Your task to perform on an android device: Clear the shopping cart on costco. Search for acer nitro on costco, select the first entry, add it to the cart, then select checkout. Image 0: 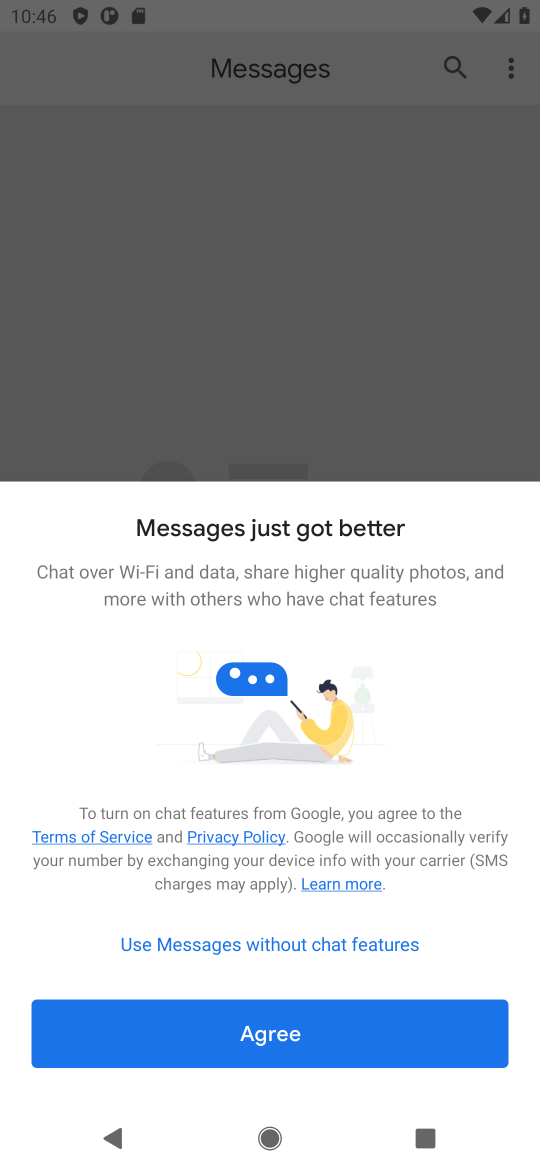
Step 0: click (307, 1054)
Your task to perform on an android device: Clear the shopping cart on costco. Search for acer nitro on costco, select the first entry, add it to the cart, then select checkout. Image 1: 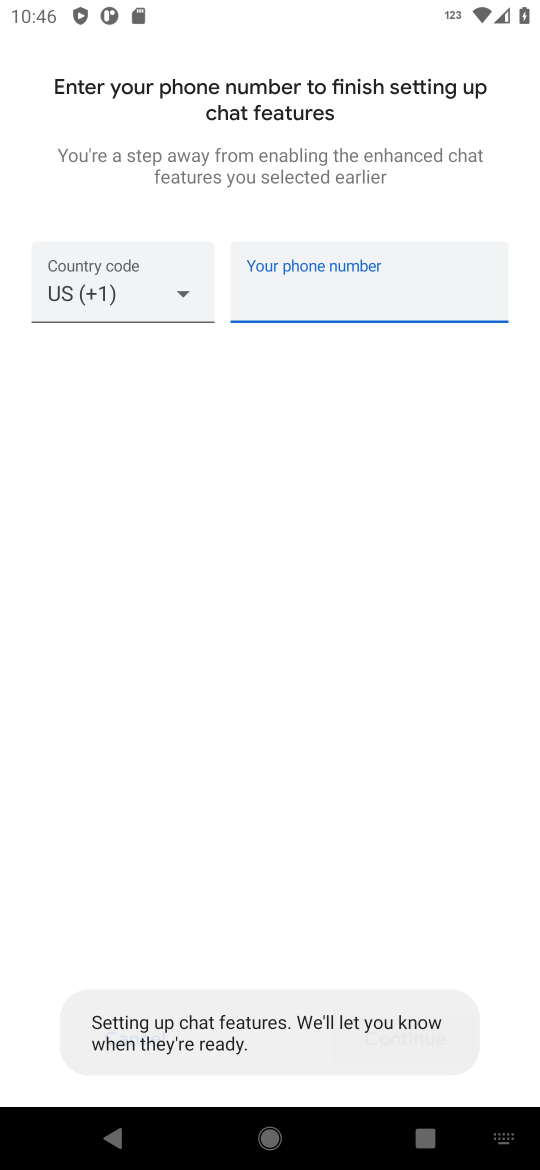
Step 1: press home button
Your task to perform on an android device: Clear the shopping cart on costco. Search for acer nitro on costco, select the first entry, add it to the cart, then select checkout. Image 2: 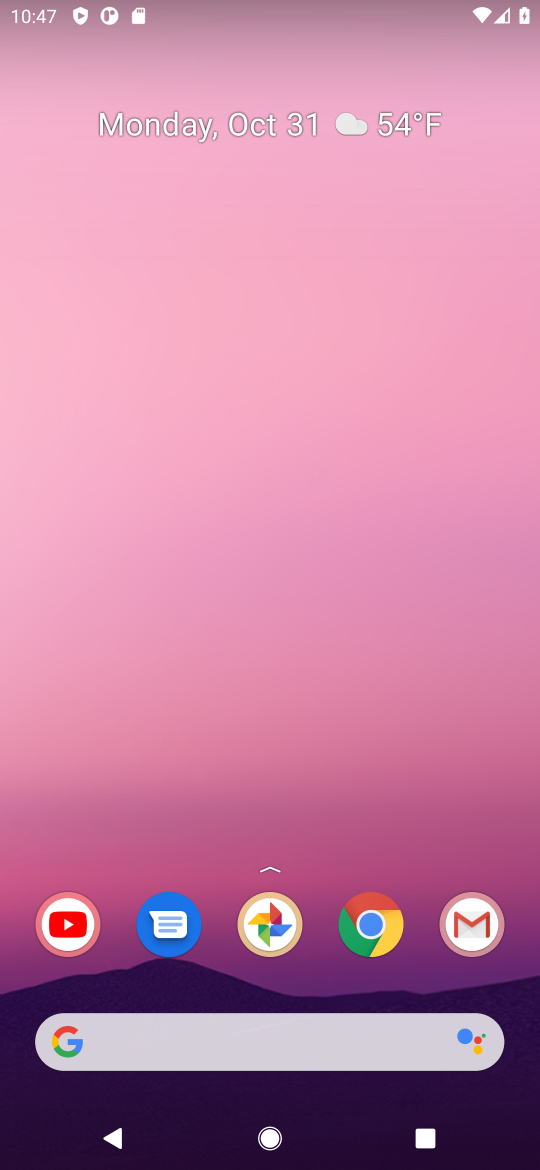
Step 2: click (364, 924)
Your task to perform on an android device: Clear the shopping cart on costco. Search for acer nitro on costco, select the first entry, add it to the cart, then select checkout. Image 3: 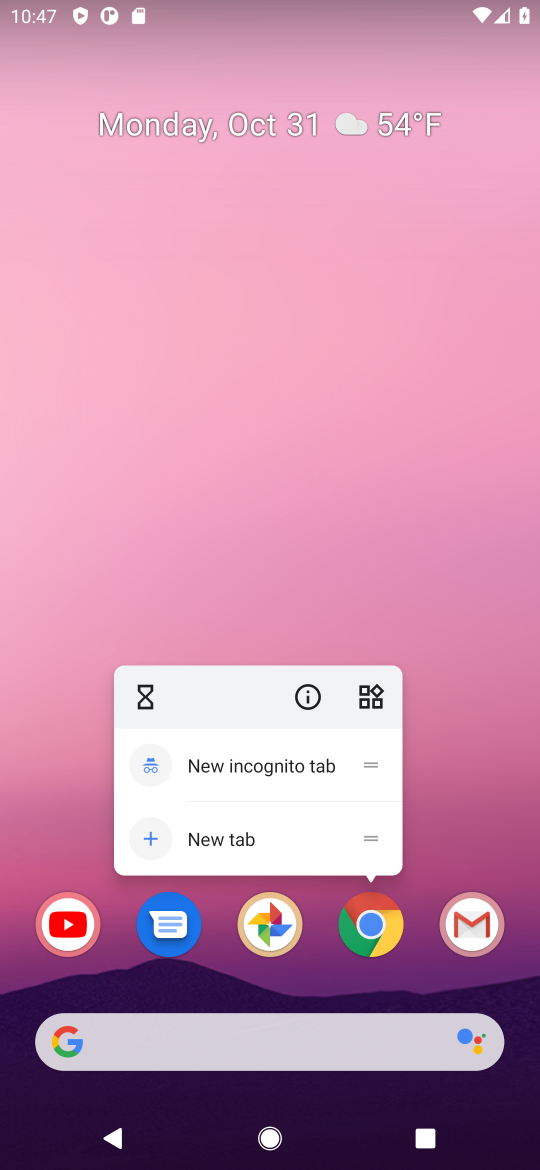
Step 3: click (207, 846)
Your task to perform on an android device: Clear the shopping cart on costco. Search for acer nitro on costco, select the first entry, add it to the cart, then select checkout. Image 4: 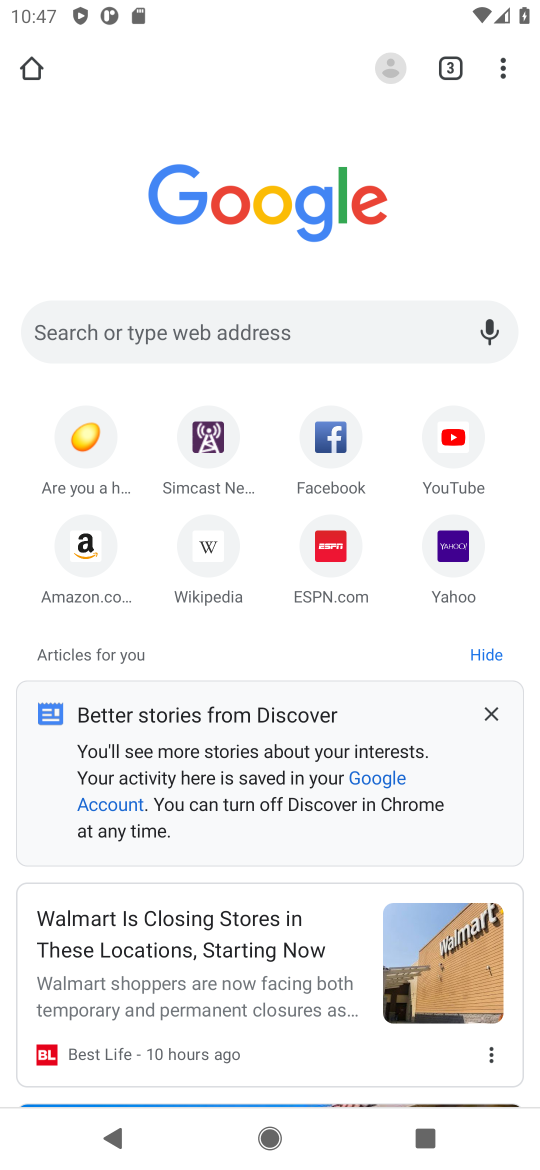
Step 4: click (258, 343)
Your task to perform on an android device: Clear the shopping cart on costco. Search for acer nitro on costco, select the first entry, add it to the cart, then select checkout. Image 5: 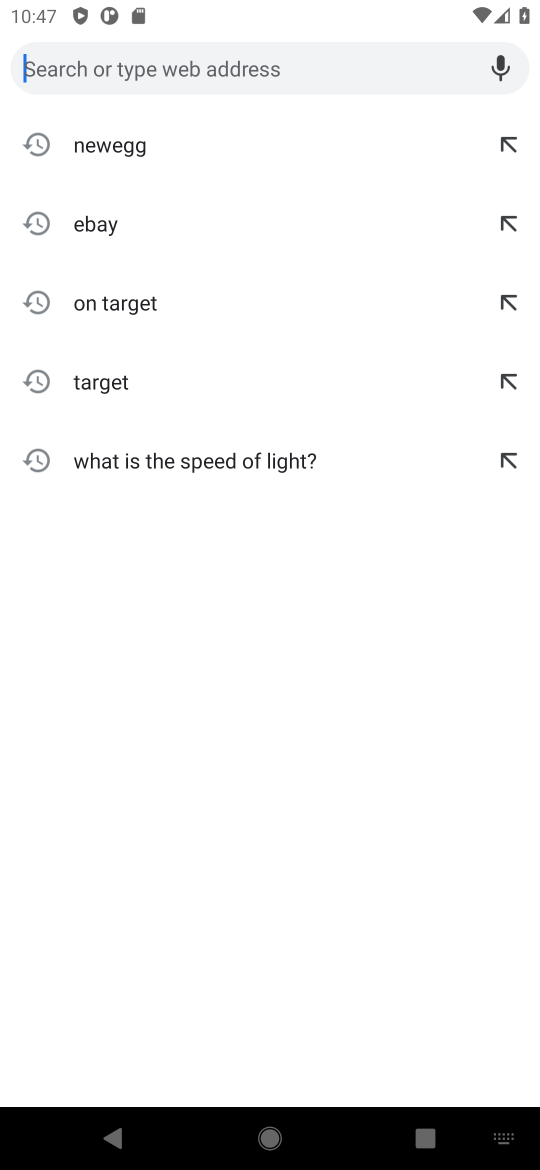
Step 5: type "costco"
Your task to perform on an android device: Clear the shopping cart on costco. Search for acer nitro on costco, select the first entry, add it to the cart, then select checkout. Image 6: 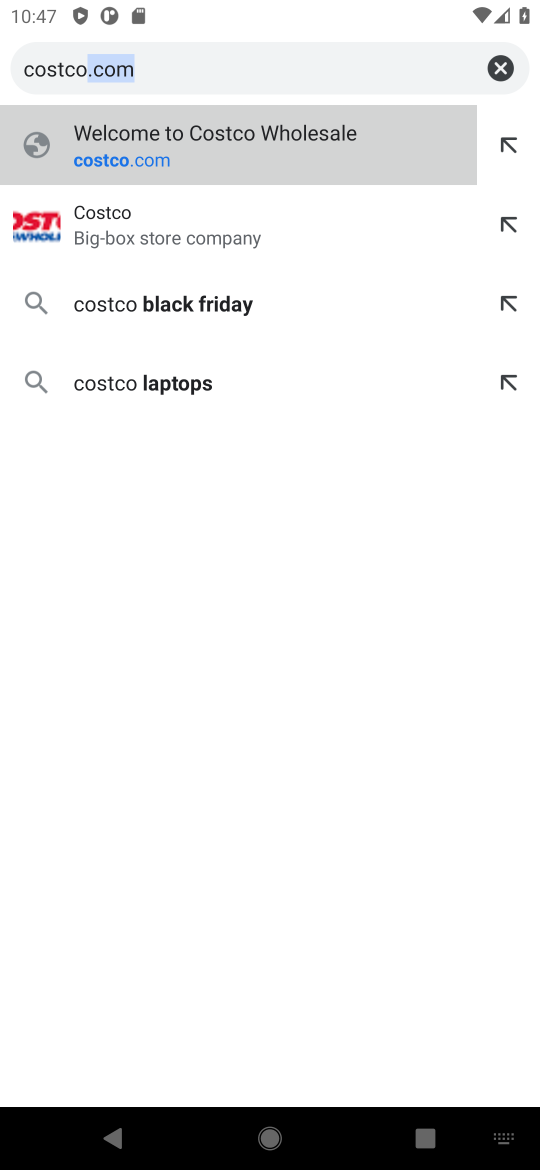
Step 6: type ""
Your task to perform on an android device: Clear the shopping cart on costco. Search for acer nitro on costco, select the first entry, add it to the cart, then select checkout. Image 7: 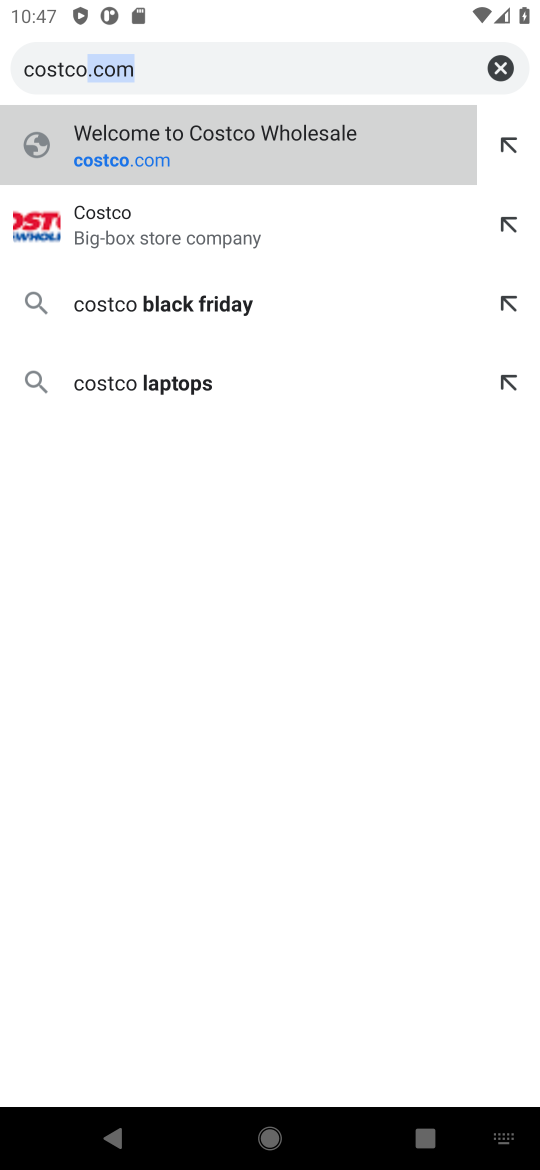
Step 7: click (161, 157)
Your task to perform on an android device: Clear the shopping cart on costco. Search for acer nitro on costco, select the first entry, add it to the cart, then select checkout. Image 8: 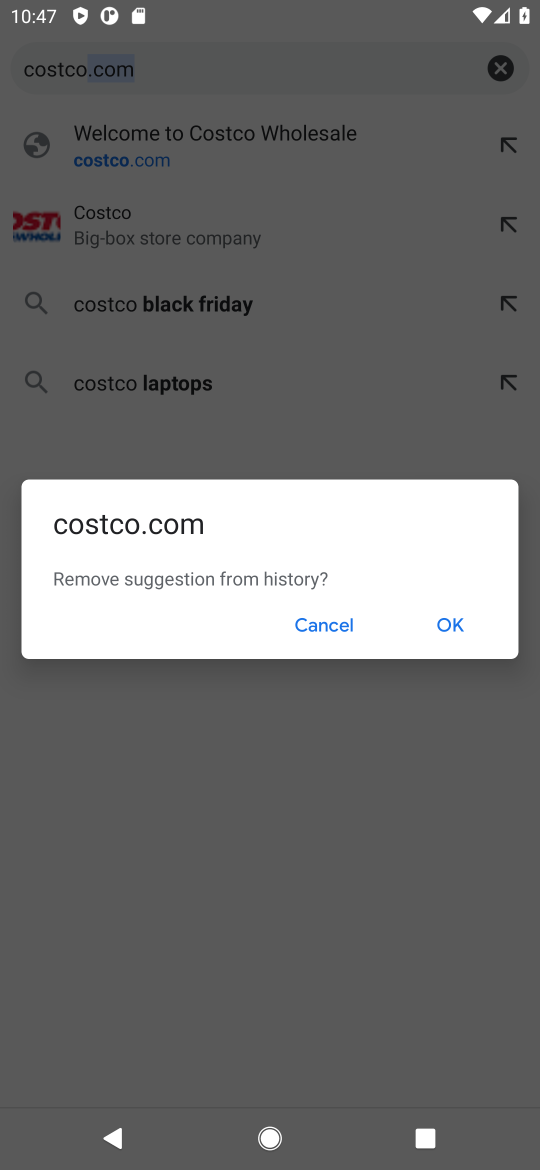
Step 8: click (456, 634)
Your task to perform on an android device: Clear the shopping cart on costco. Search for acer nitro on costco, select the first entry, add it to the cart, then select checkout. Image 9: 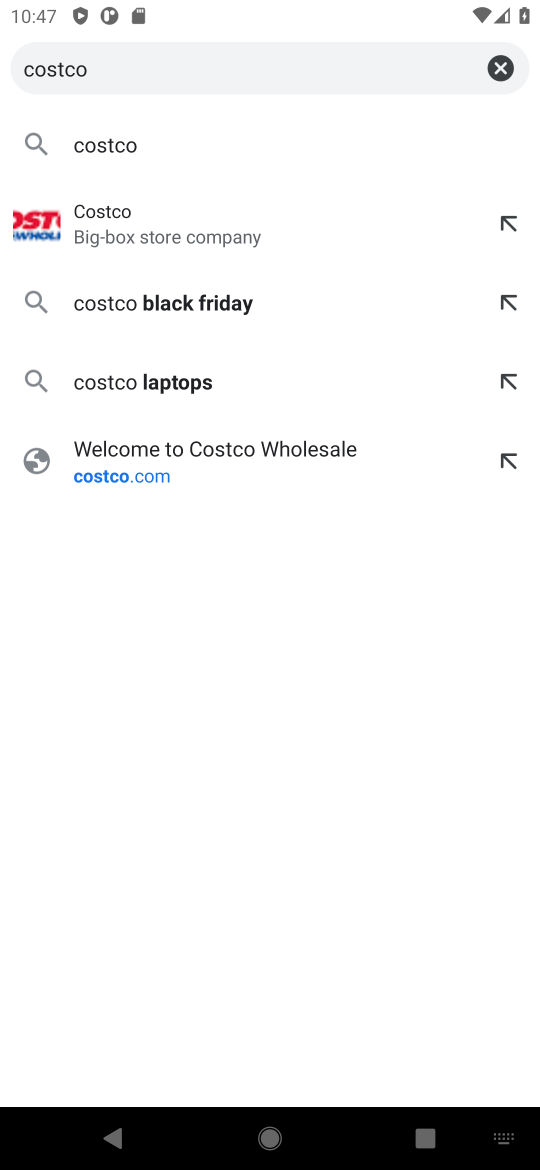
Step 9: click (122, 475)
Your task to perform on an android device: Clear the shopping cart on costco. Search for acer nitro on costco, select the first entry, add it to the cart, then select checkout. Image 10: 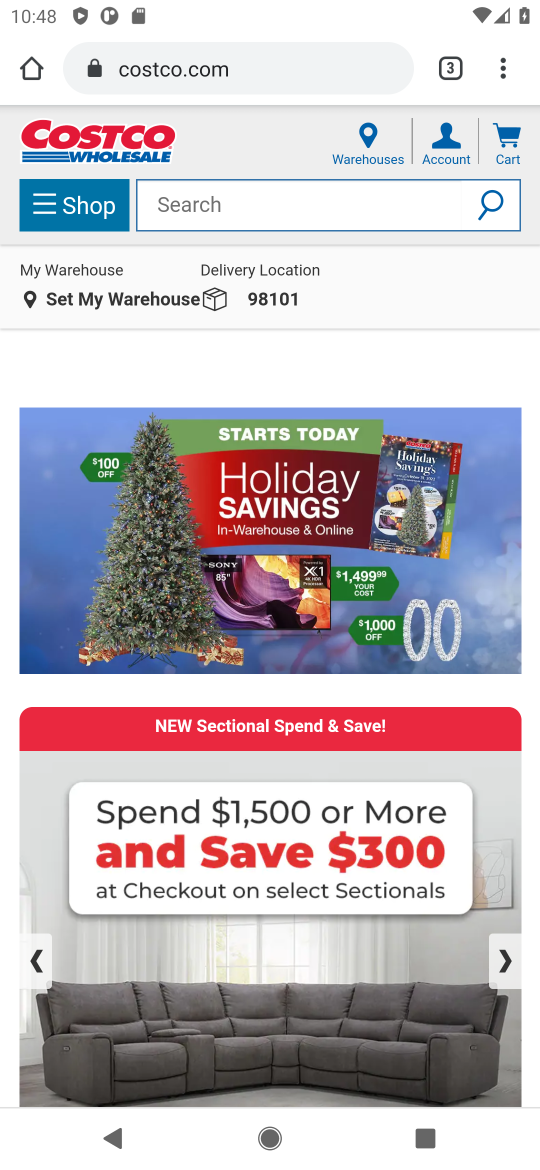
Step 10: click (329, 210)
Your task to perform on an android device: Clear the shopping cart on costco. Search for acer nitro on costco, select the first entry, add it to the cart, then select checkout. Image 11: 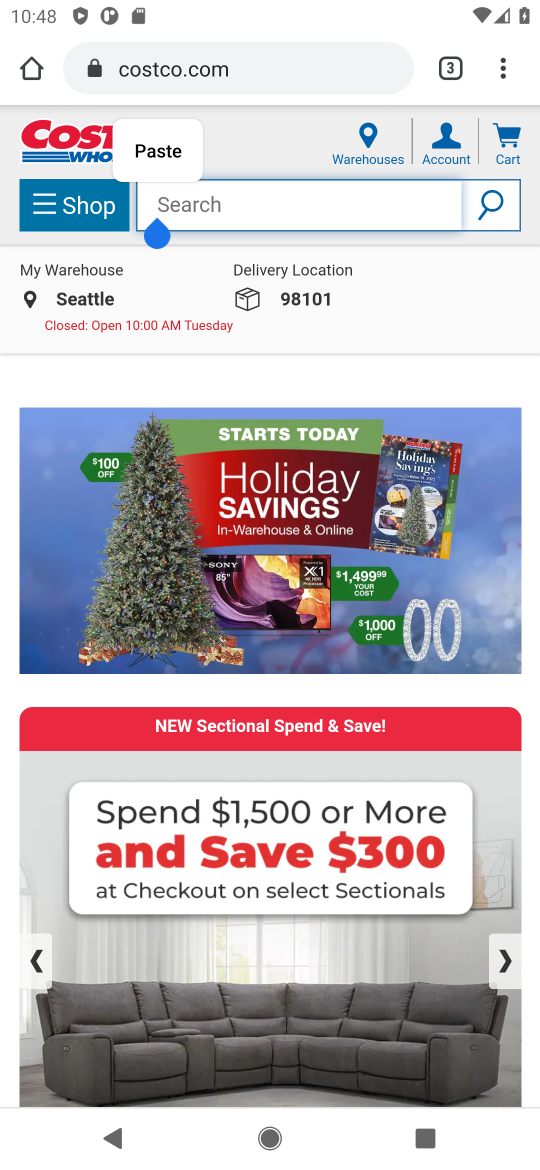
Step 11: type "acer nitro"
Your task to perform on an android device: Clear the shopping cart on costco. Search for acer nitro on costco, select the first entry, add it to the cart, then select checkout. Image 12: 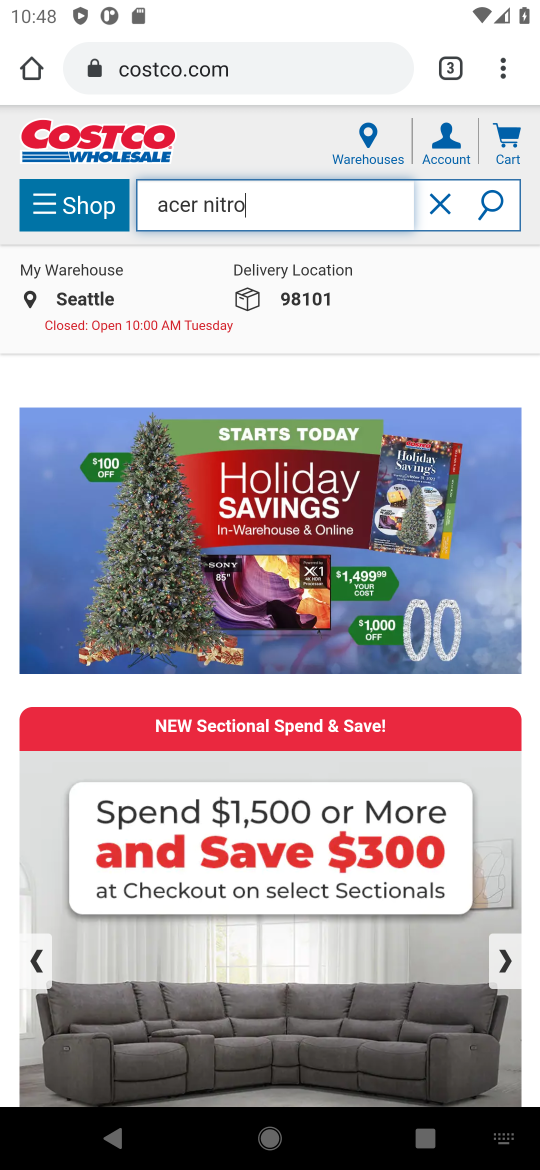
Step 12: type ""
Your task to perform on an android device: Clear the shopping cart on costco. Search for acer nitro on costco, select the first entry, add it to the cart, then select checkout. Image 13: 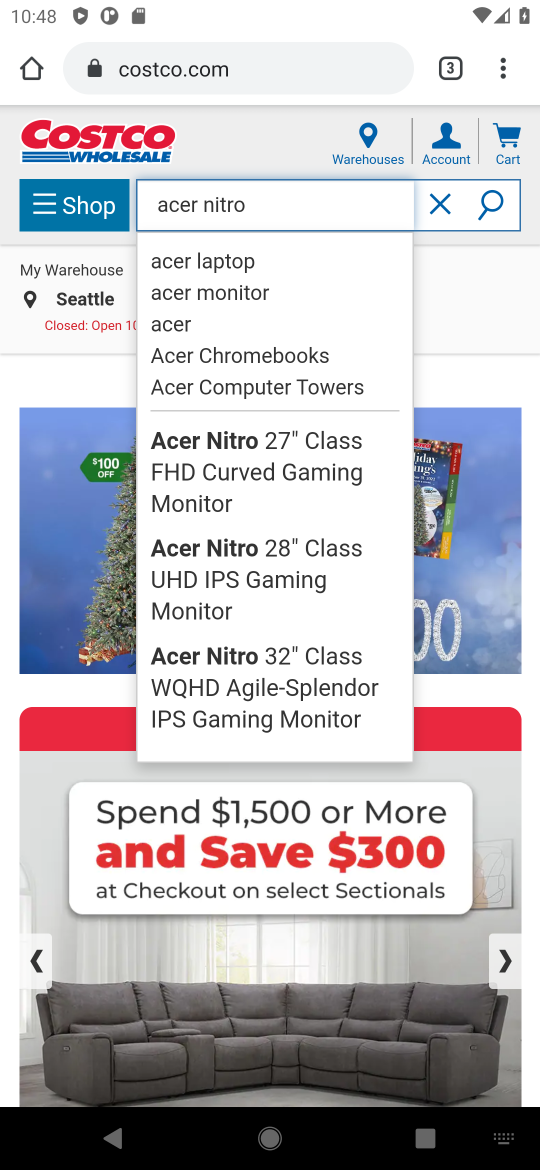
Step 13: click (255, 464)
Your task to perform on an android device: Clear the shopping cart on costco. Search for acer nitro on costco, select the first entry, add it to the cart, then select checkout. Image 14: 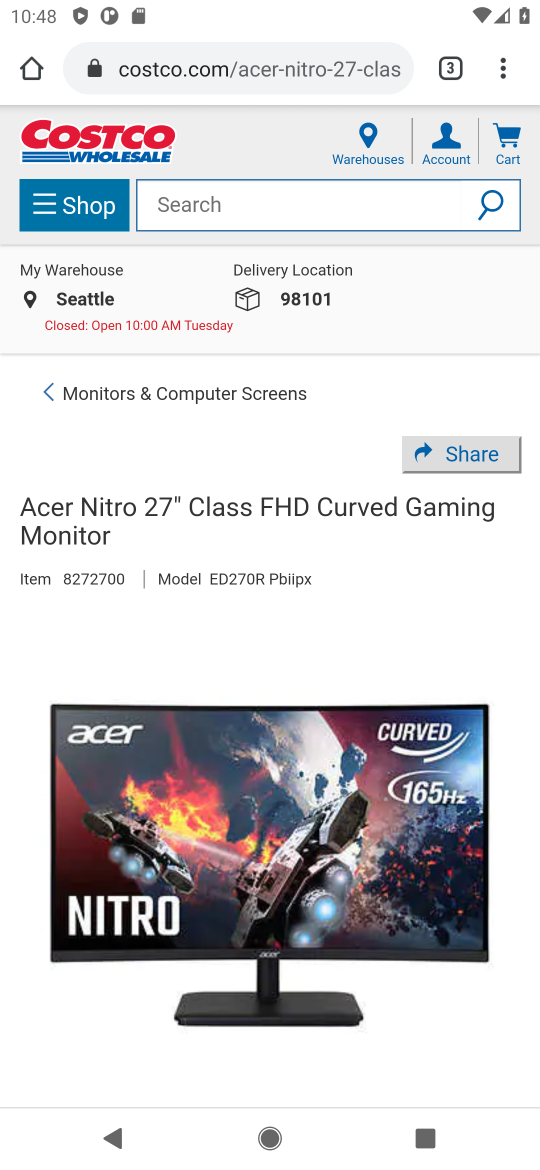
Step 14: drag from (255, 677) to (344, 314)
Your task to perform on an android device: Clear the shopping cart on costco. Search for acer nitro on costco, select the first entry, add it to the cart, then select checkout. Image 15: 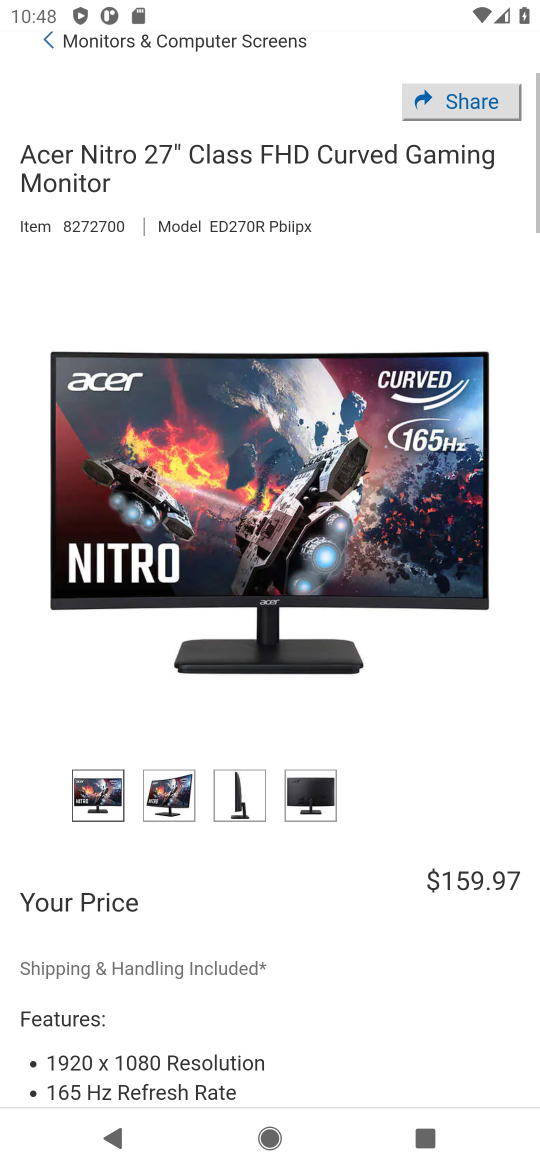
Step 15: drag from (274, 827) to (375, 350)
Your task to perform on an android device: Clear the shopping cart on costco. Search for acer nitro on costco, select the first entry, add it to the cart, then select checkout. Image 16: 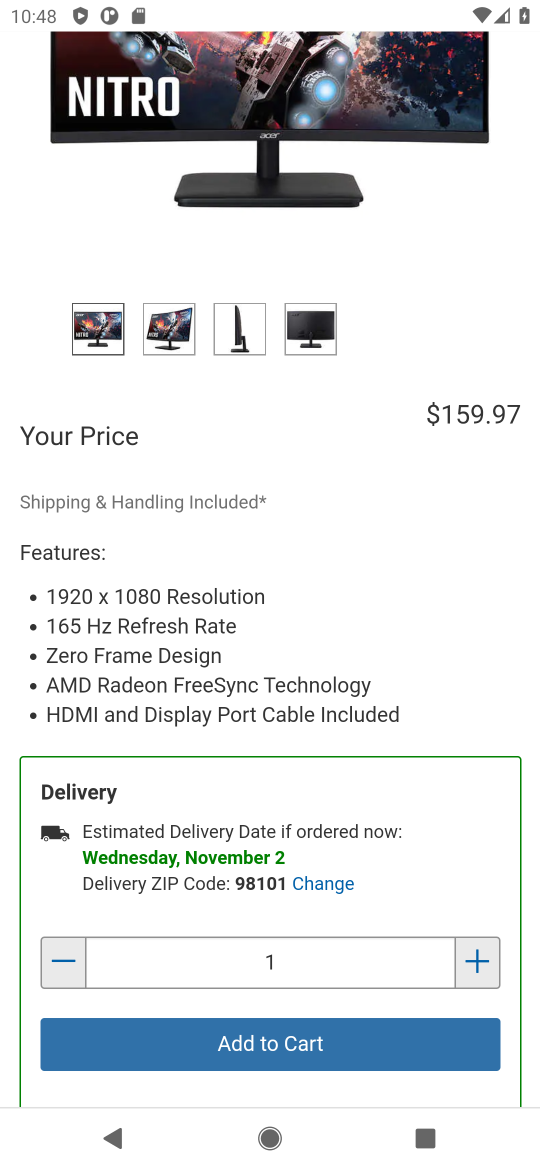
Step 16: click (260, 1051)
Your task to perform on an android device: Clear the shopping cart on costco. Search for acer nitro on costco, select the first entry, add it to the cart, then select checkout. Image 17: 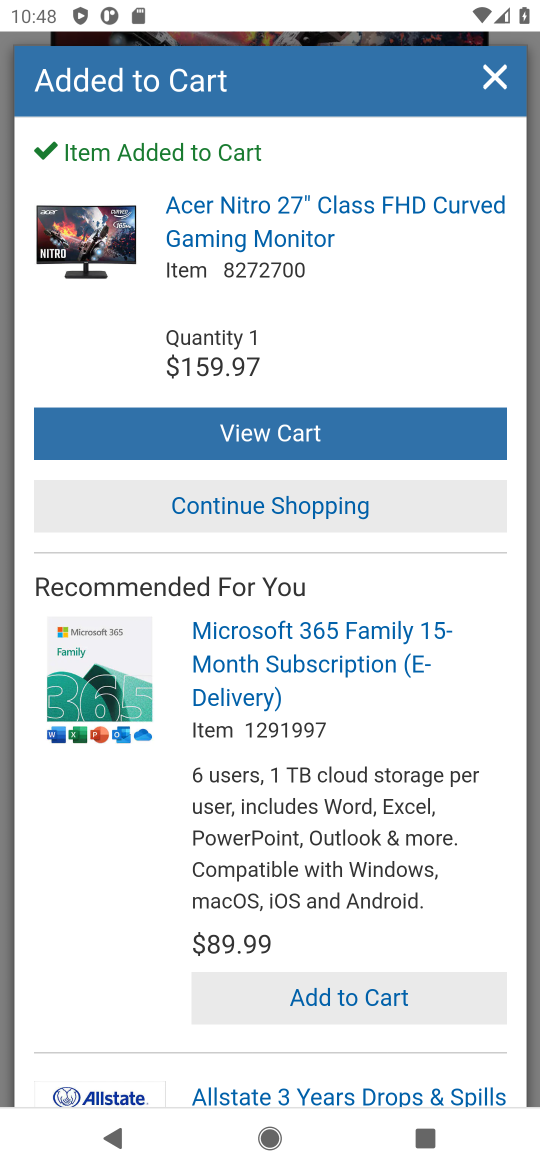
Step 17: click (497, 73)
Your task to perform on an android device: Clear the shopping cart on costco. Search for acer nitro on costco, select the first entry, add it to the cart, then select checkout. Image 18: 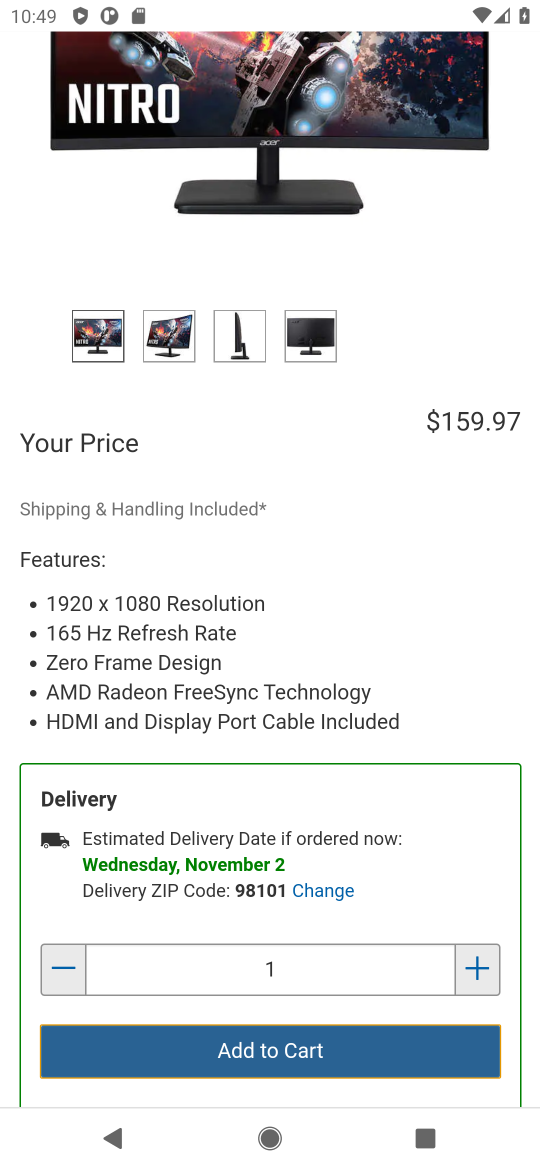
Step 18: drag from (375, 335) to (383, 847)
Your task to perform on an android device: Clear the shopping cart on costco. Search for acer nitro on costco, select the first entry, add it to the cart, then select checkout. Image 19: 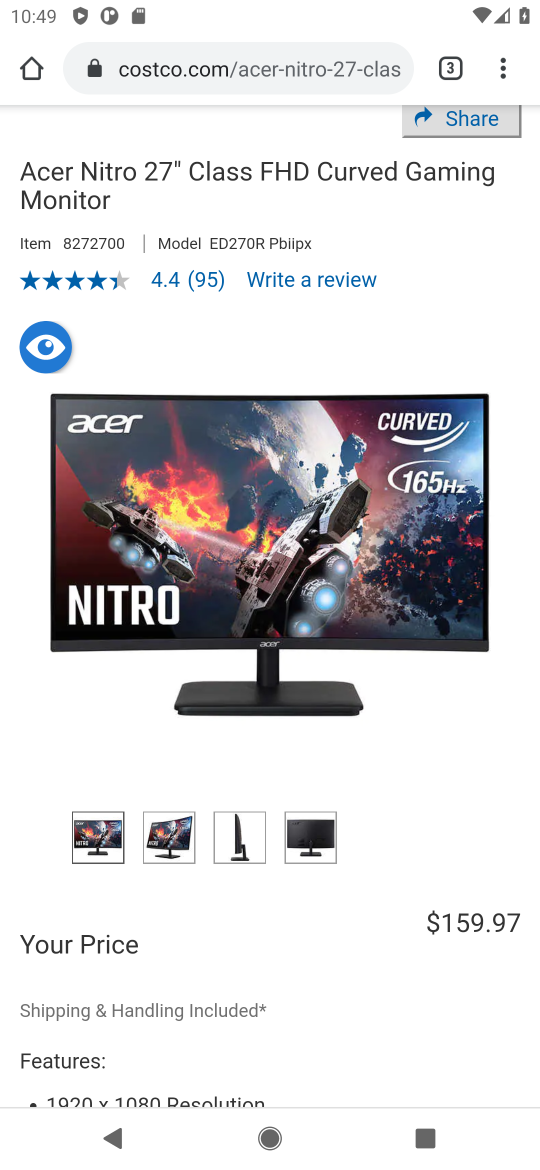
Step 19: drag from (389, 395) to (401, 866)
Your task to perform on an android device: Clear the shopping cart on costco. Search for acer nitro on costco, select the first entry, add it to the cart, then select checkout. Image 20: 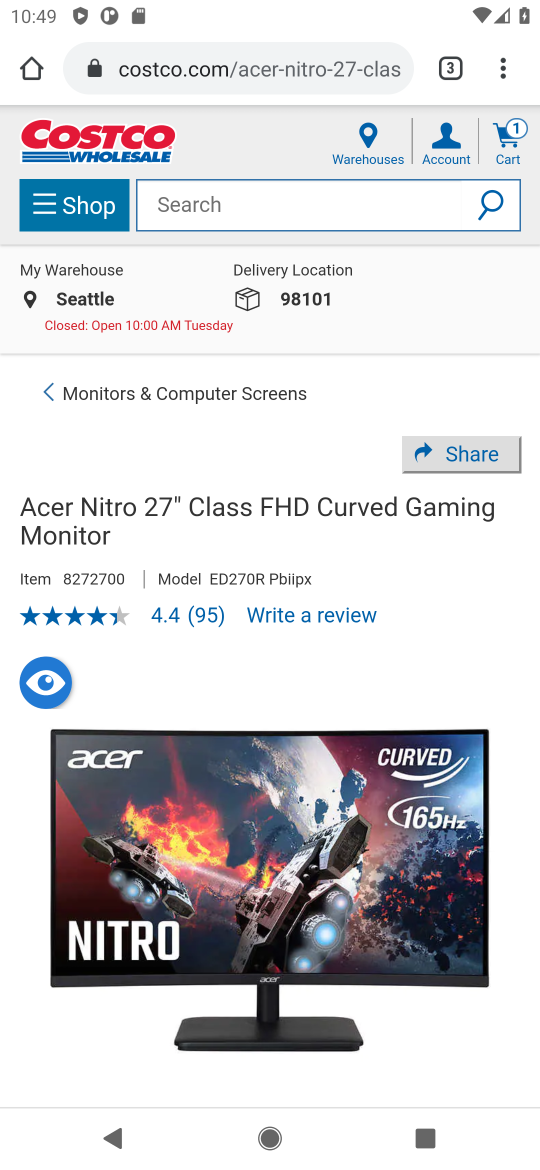
Step 20: click (507, 127)
Your task to perform on an android device: Clear the shopping cart on costco. Search for acer nitro on costco, select the first entry, add it to the cart, then select checkout. Image 21: 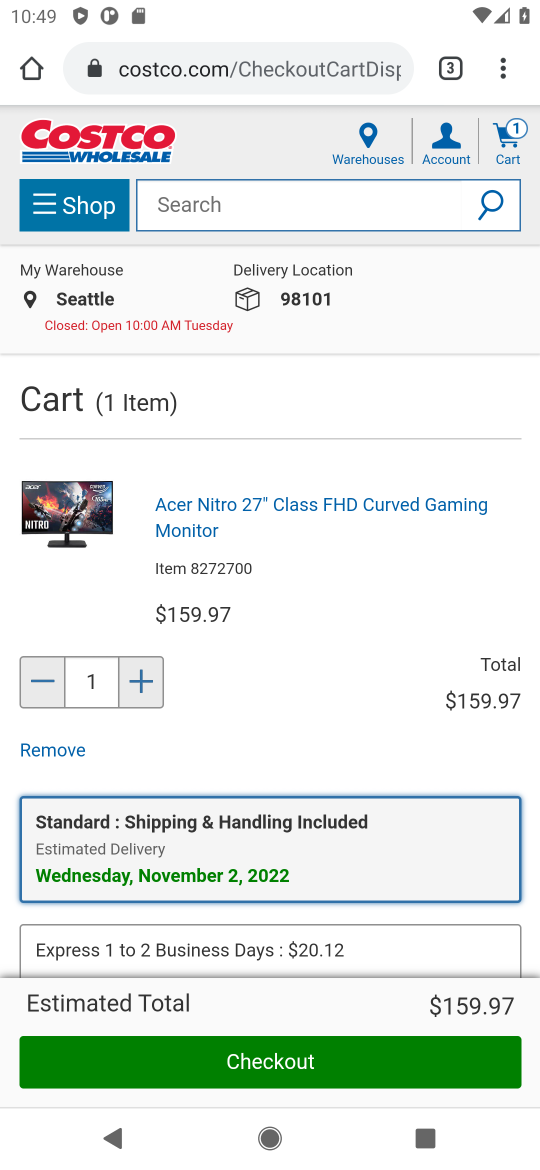
Step 21: drag from (346, 674) to (404, 471)
Your task to perform on an android device: Clear the shopping cart on costco. Search for acer nitro on costco, select the first entry, add it to the cart, then select checkout. Image 22: 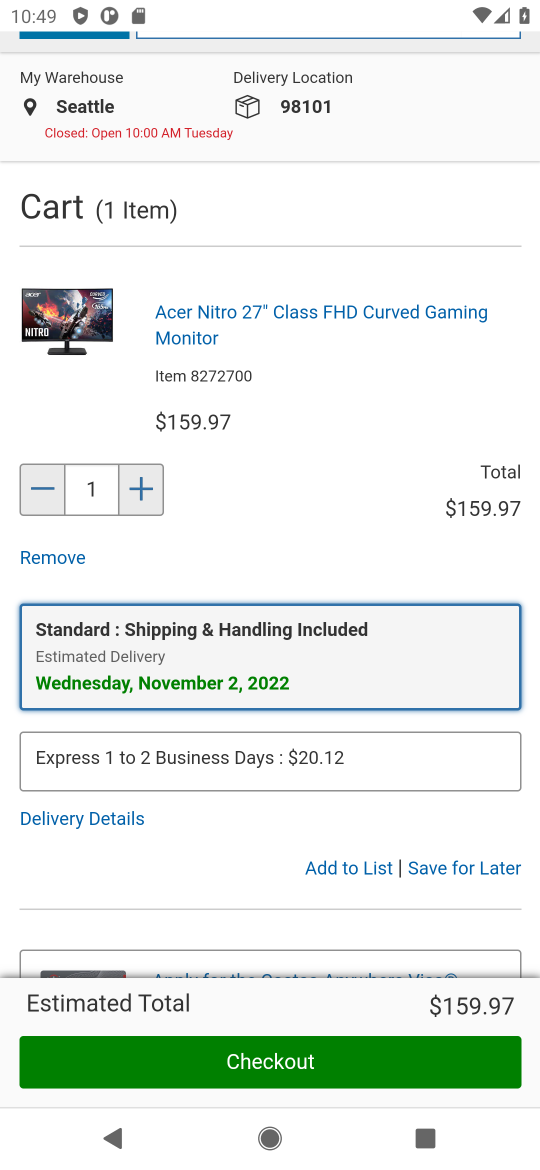
Step 22: click (279, 1071)
Your task to perform on an android device: Clear the shopping cart on costco. Search for acer nitro on costco, select the first entry, add it to the cart, then select checkout. Image 23: 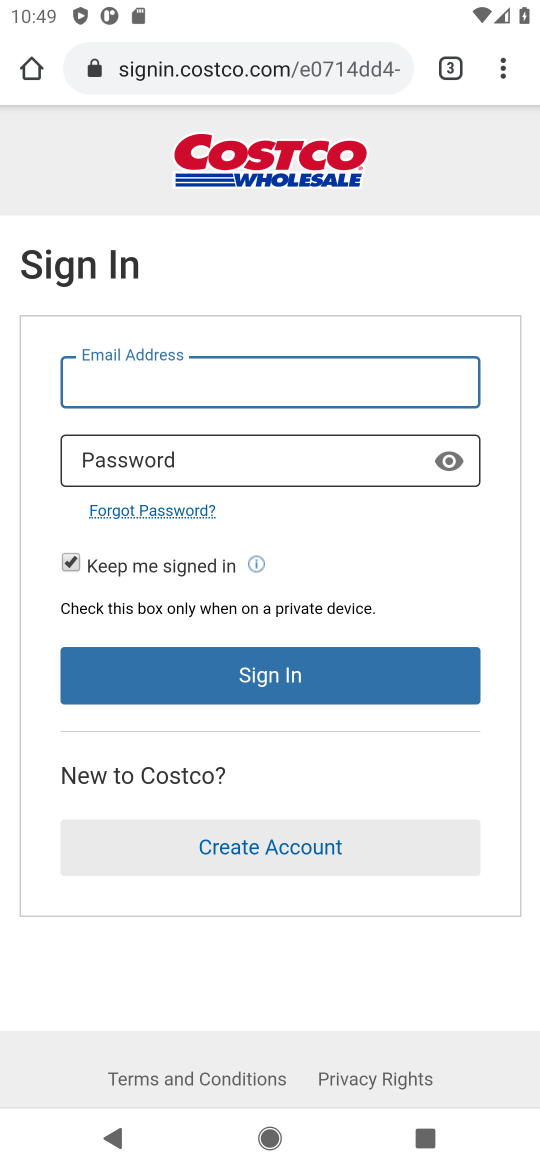
Step 23: task complete